Your task to perform on an android device: Check the weather Image 0: 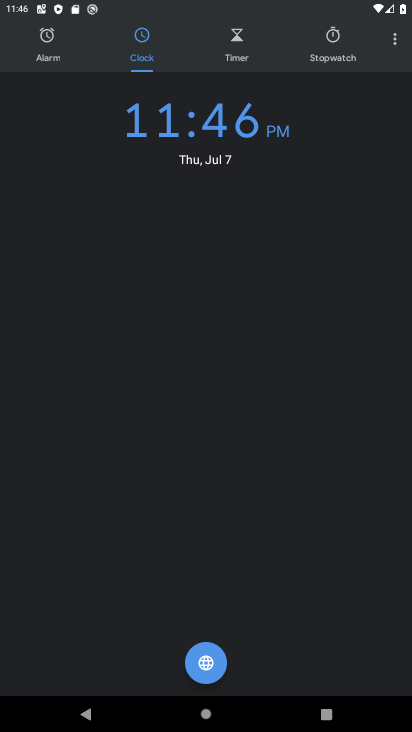
Step 0: press home button
Your task to perform on an android device: Check the weather Image 1: 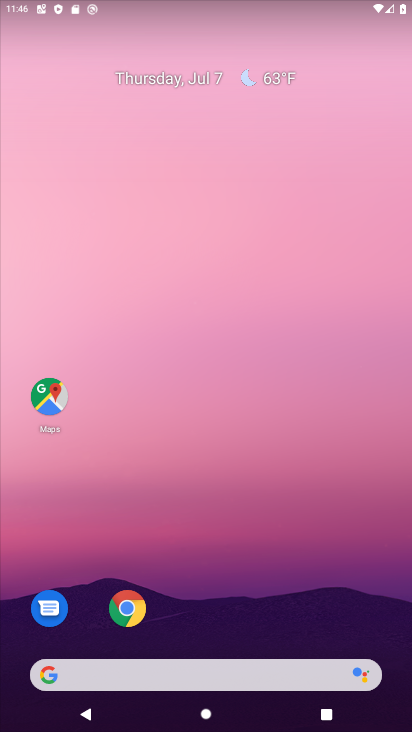
Step 1: click (119, 669)
Your task to perform on an android device: Check the weather Image 2: 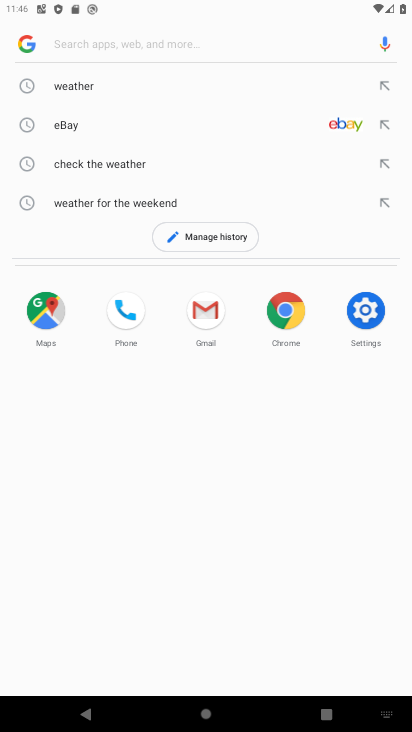
Step 2: click (113, 83)
Your task to perform on an android device: Check the weather Image 3: 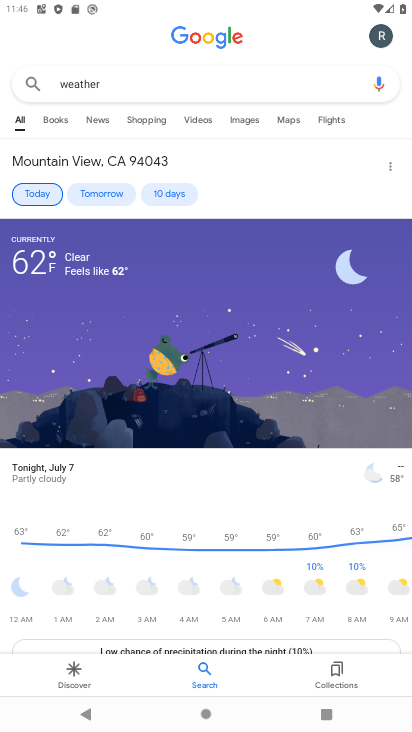
Step 3: task complete